Your task to perform on an android device: install app "Google Pay: Save, Pay, Manage" Image 0: 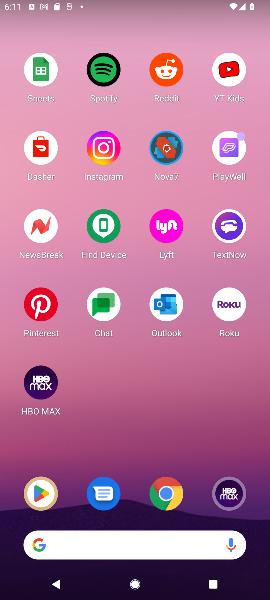
Step 0: drag from (153, 597) to (122, 0)
Your task to perform on an android device: install app "Google Pay: Save, Pay, Manage" Image 1: 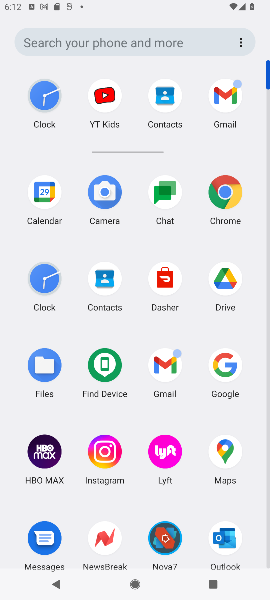
Step 1: drag from (136, 509) to (136, 272)
Your task to perform on an android device: install app "Google Pay: Save, Pay, Manage" Image 2: 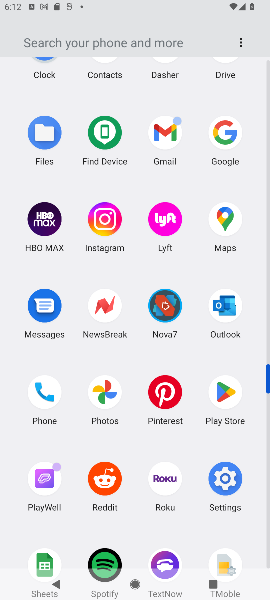
Step 2: drag from (140, 518) to (124, 229)
Your task to perform on an android device: install app "Google Pay: Save, Pay, Manage" Image 3: 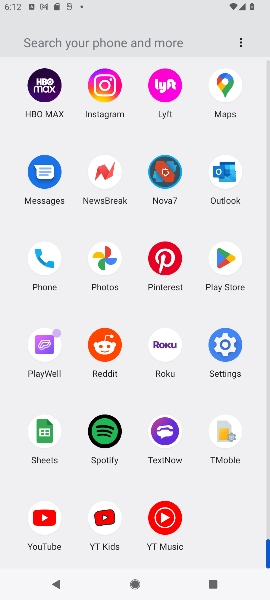
Step 3: click (230, 259)
Your task to perform on an android device: install app "Google Pay: Save, Pay, Manage" Image 4: 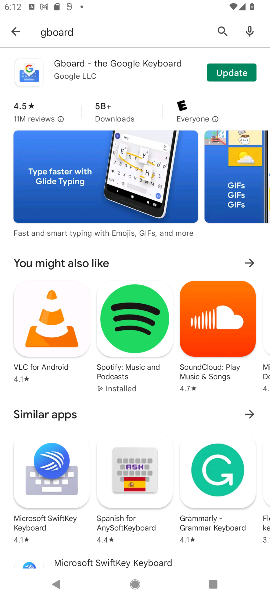
Step 4: click (222, 25)
Your task to perform on an android device: install app "Google Pay: Save, Pay, Manage" Image 5: 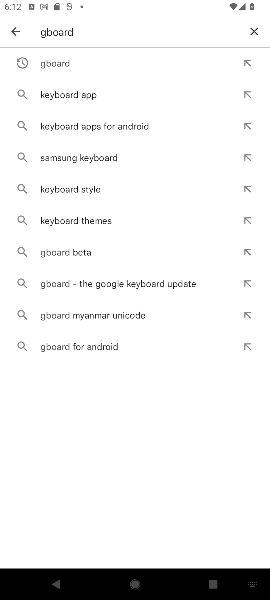
Step 5: click (251, 30)
Your task to perform on an android device: install app "Google Pay: Save, Pay, Manage" Image 6: 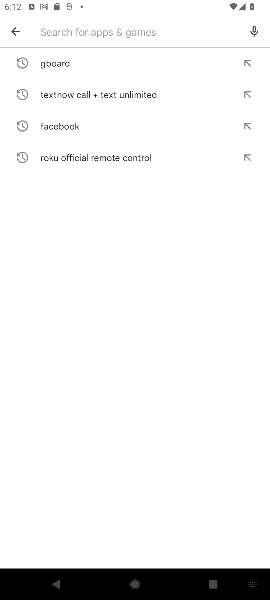
Step 6: type "Google Pay: Save, Pay, Manage"
Your task to perform on an android device: install app "Google Pay: Save, Pay, Manage" Image 7: 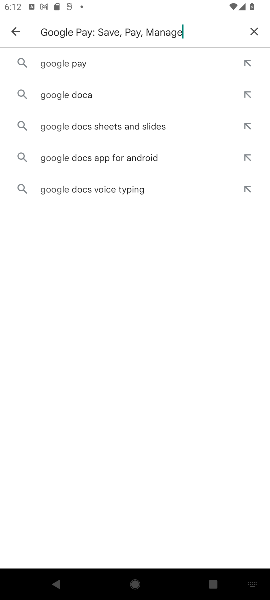
Step 7: type ""
Your task to perform on an android device: install app "Google Pay: Save, Pay, Manage" Image 8: 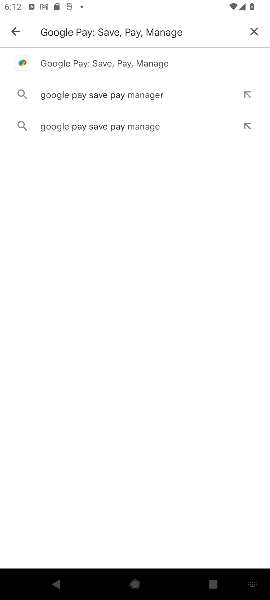
Step 8: click (137, 64)
Your task to perform on an android device: install app "Google Pay: Save, Pay, Manage" Image 9: 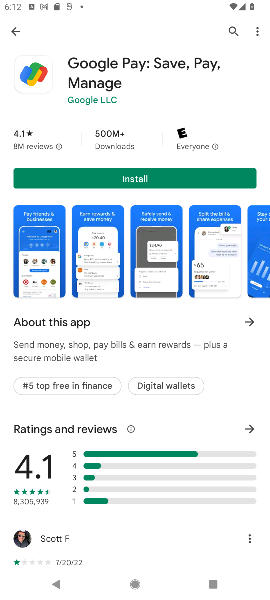
Step 9: click (134, 179)
Your task to perform on an android device: install app "Google Pay: Save, Pay, Manage" Image 10: 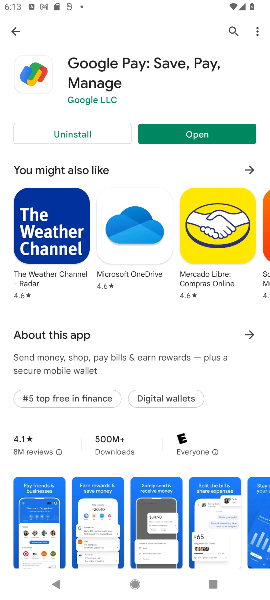
Step 10: task complete